Your task to perform on an android device: Search for bose soundlink on newegg, select the first entry, and add it to the cart. Image 0: 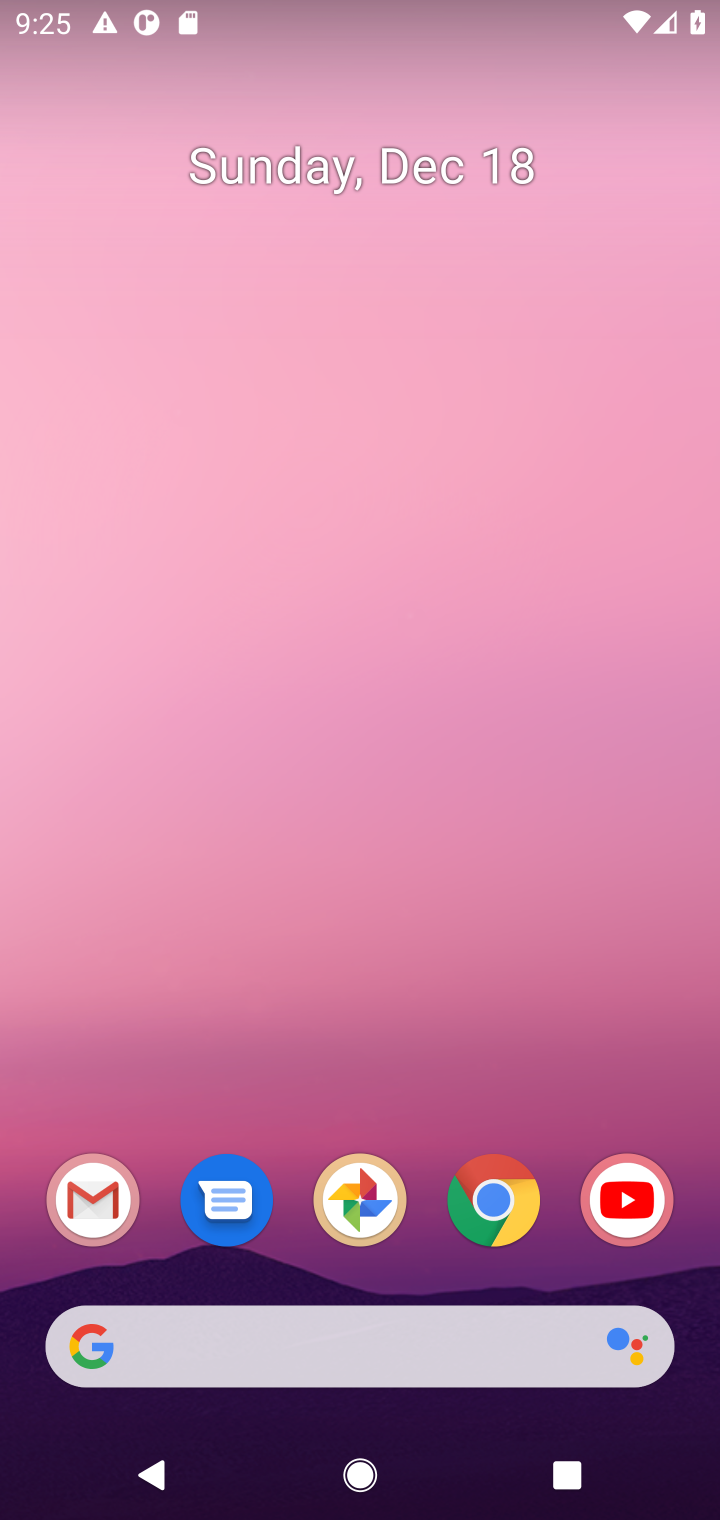
Step 0: click (492, 1194)
Your task to perform on an android device: Search for bose soundlink on newegg, select the first entry, and add it to the cart. Image 1: 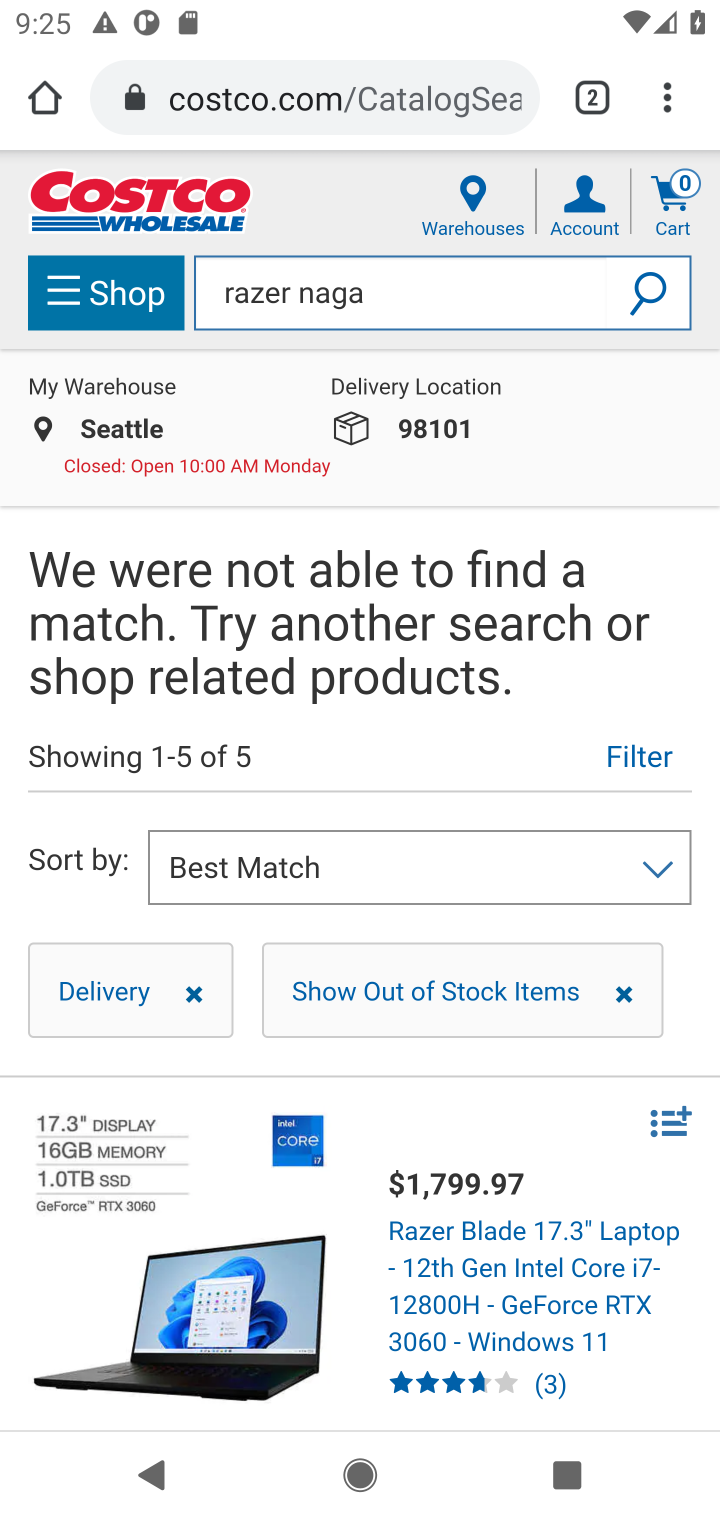
Step 1: click (303, 97)
Your task to perform on an android device: Search for bose soundlink on newegg, select the first entry, and add it to the cart. Image 2: 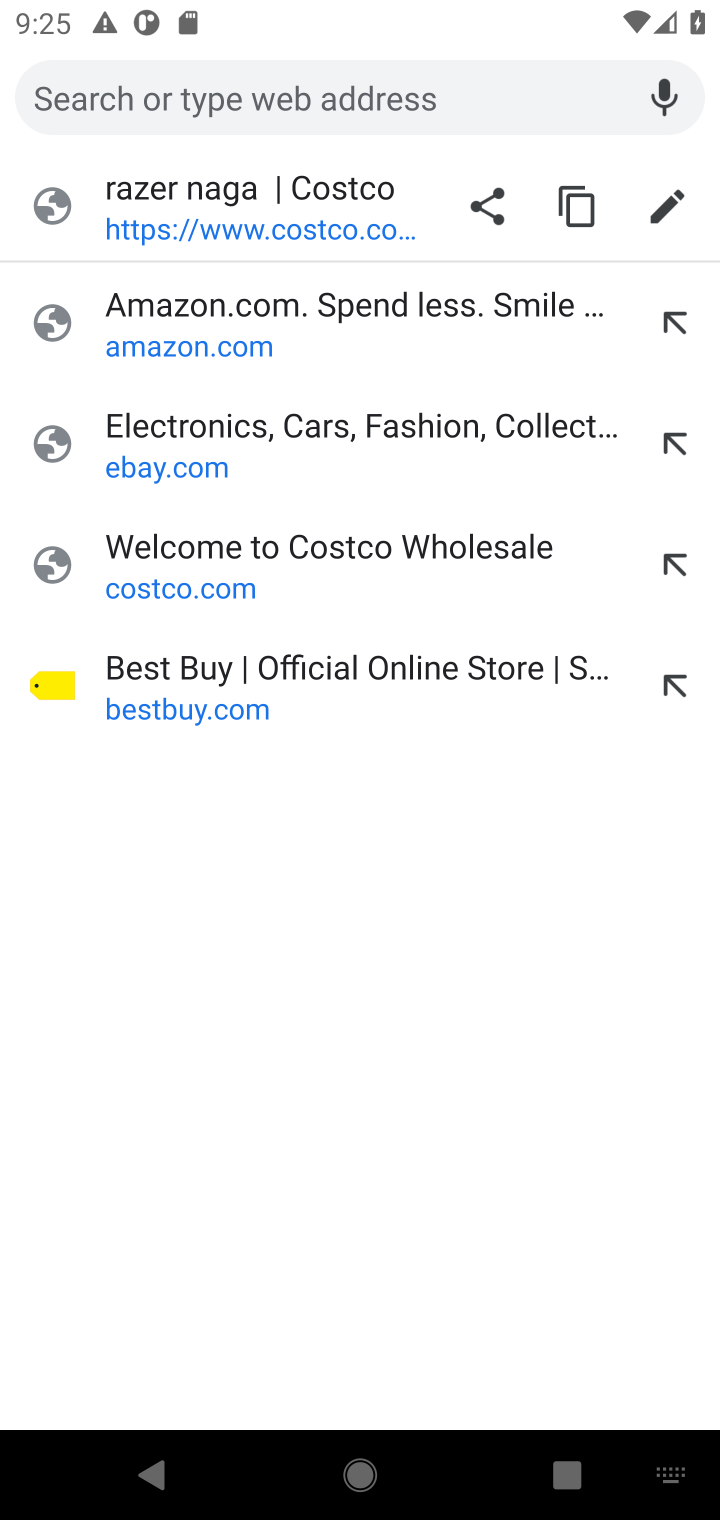
Step 2: type "newegg.com"
Your task to perform on an android device: Search for bose soundlink on newegg, select the first entry, and add it to the cart. Image 3: 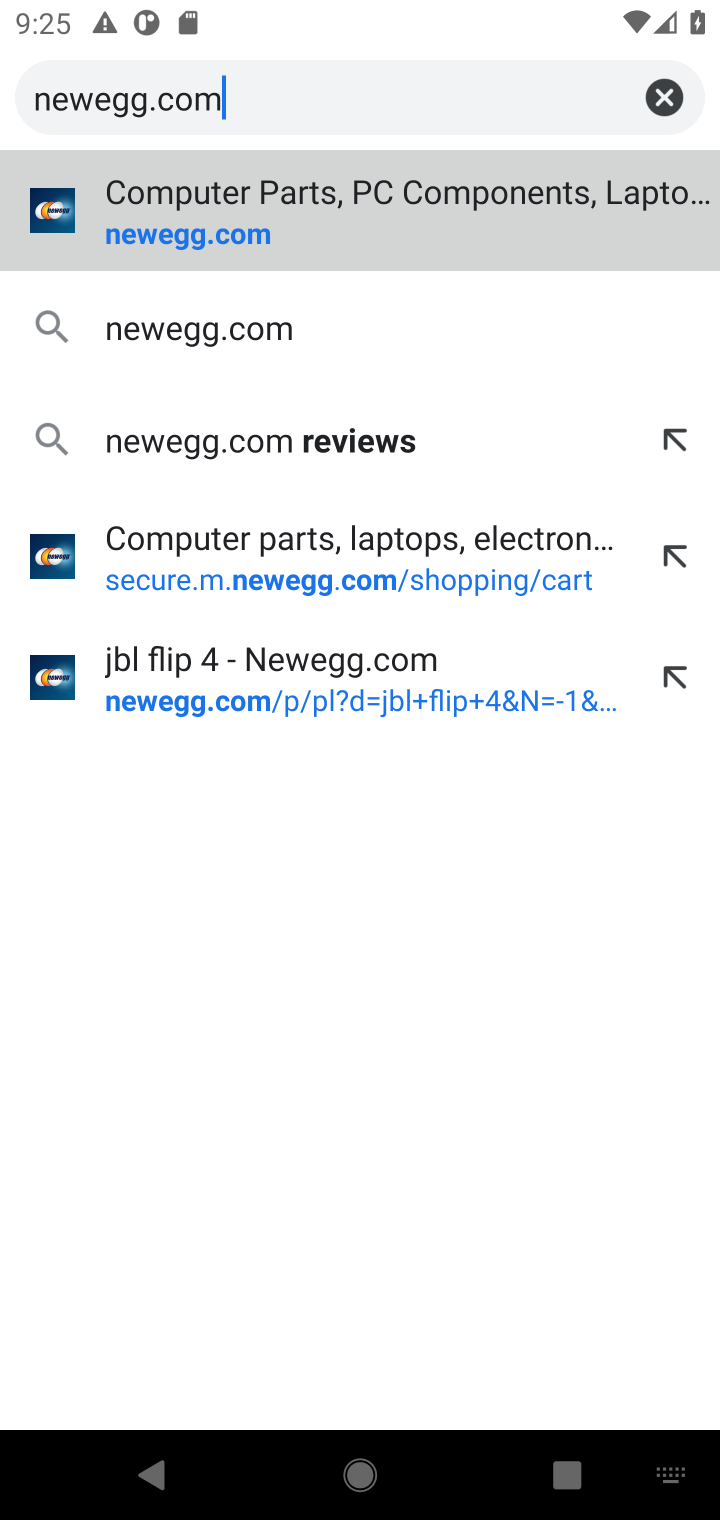
Step 3: click (152, 233)
Your task to perform on an android device: Search for bose soundlink on newegg, select the first entry, and add it to the cart. Image 4: 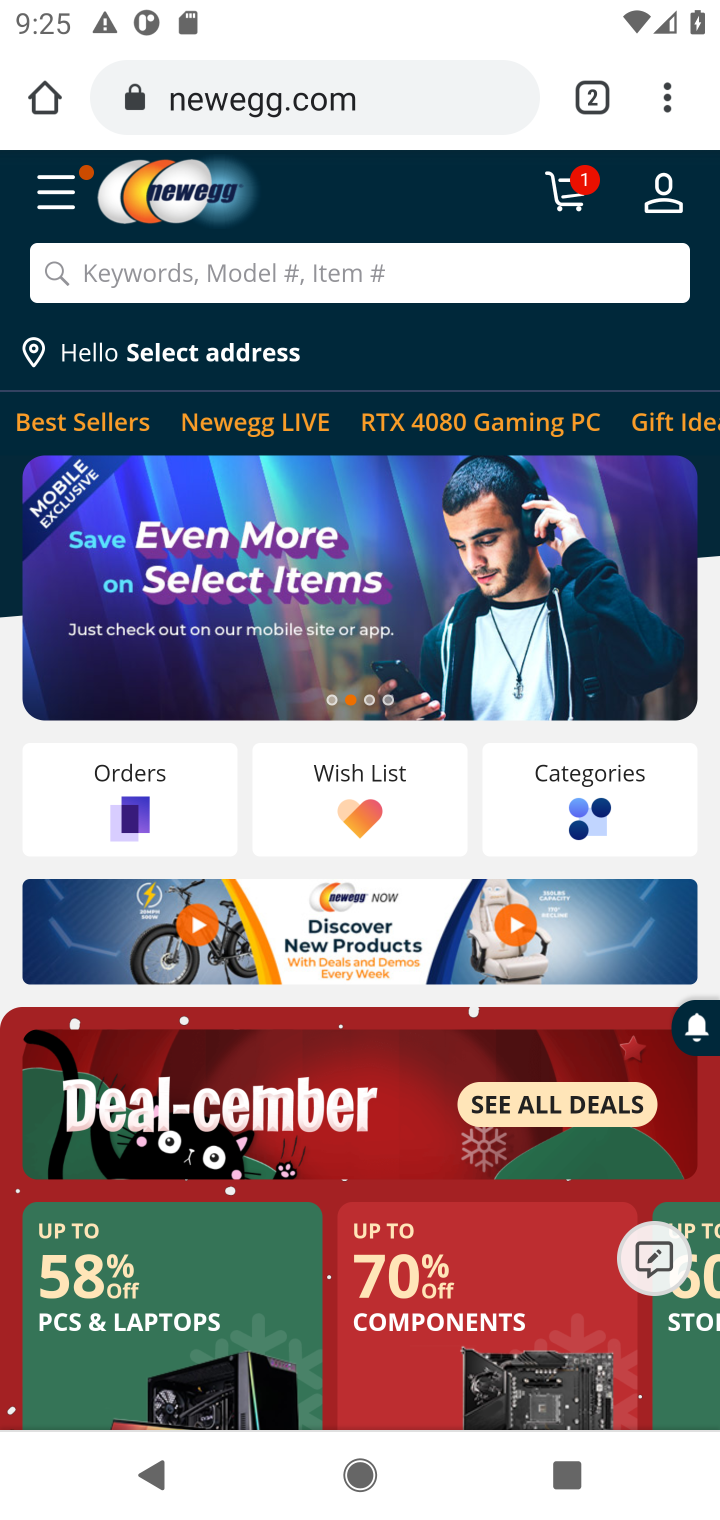
Step 4: click (150, 284)
Your task to perform on an android device: Search for bose soundlink on newegg, select the first entry, and add it to the cart. Image 5: 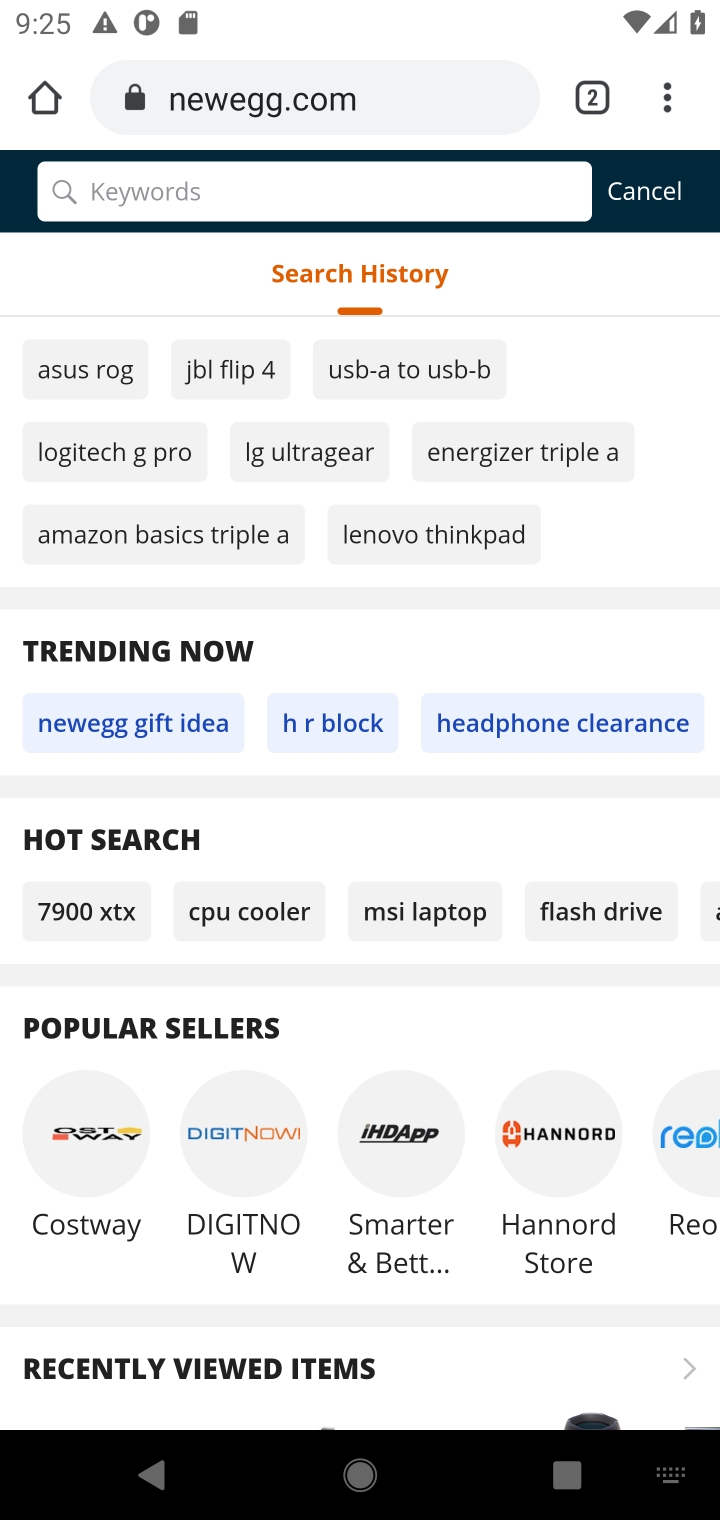
Step 5: type " bose soundlink"
Your task to perform on an android device: Search for bose soundlink on newegg, select the first entry, and add it to the cart. Image 6: 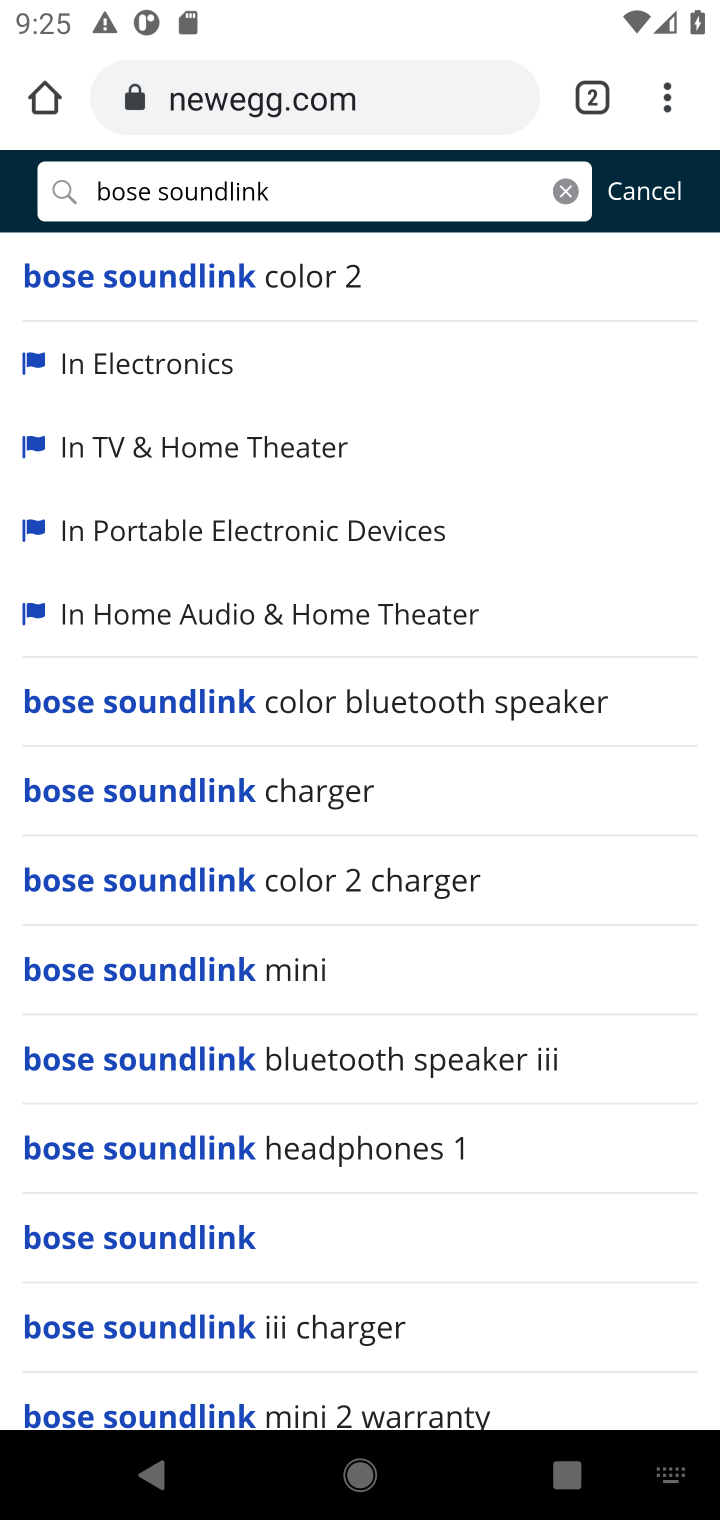
Step 6: click (141, 1249)
Your task to perform on an android device: Search for bose soundlink on newegg, select the first entry, and add it to the cart. Image 7: 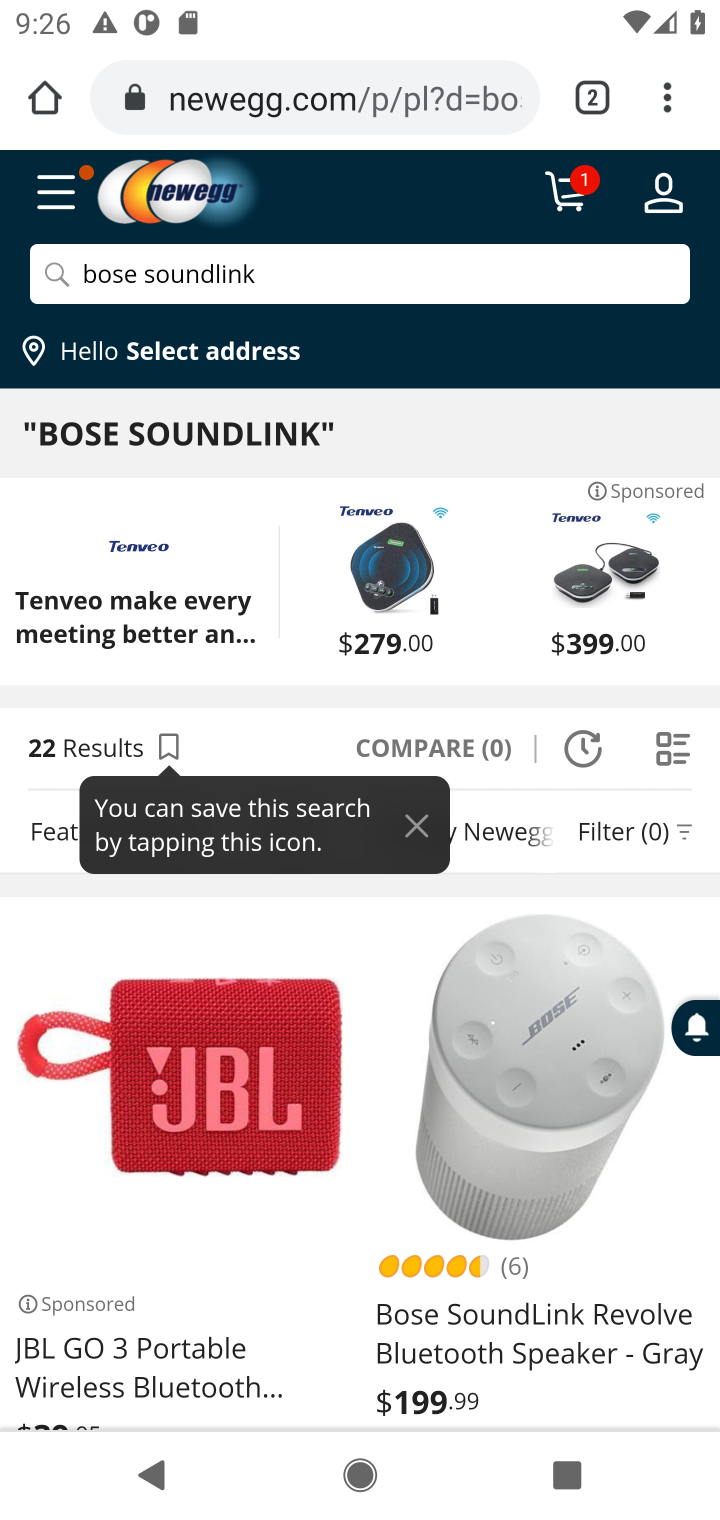
Step 7: task complete